Your task to perform on an android device: Open calendar and show me the second week of next month Image 0: 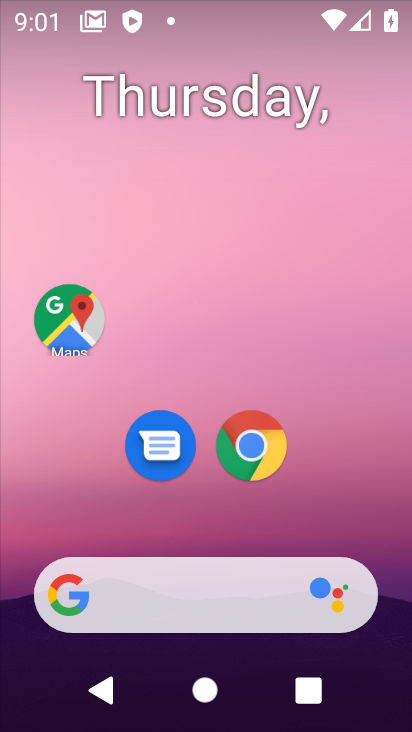
Step 0: drag from (250, 265) to (218, 144)
Your task to perform on an android device: Open calendar and show me the second week of next month Image 1: 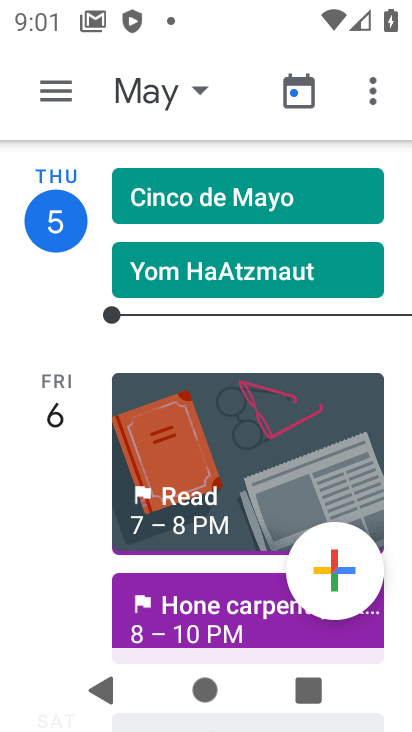
Step 1: press home button
Your task to perform on an android device: Open calendar and show me the second week of next month Image 2: 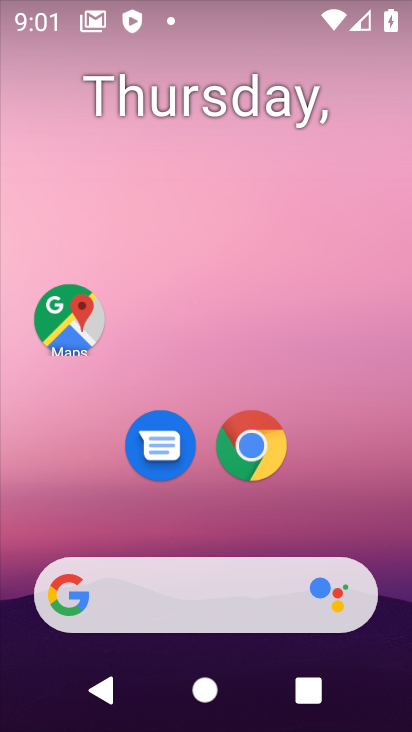
Step 2: drag from (313, 535) to (154, 165)
Your task to perform on an android device: Open calendar and show me the second week of next month Image 3: 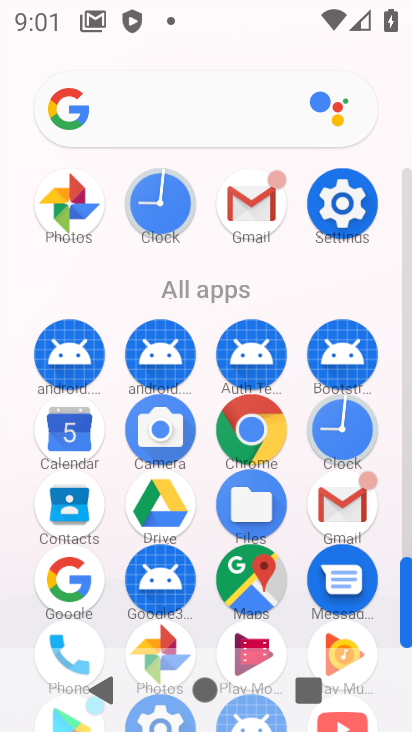
Step 3: click (77, 465)
Your task to perform on an android device: Open calendar and show me the second week of next month Image 4: 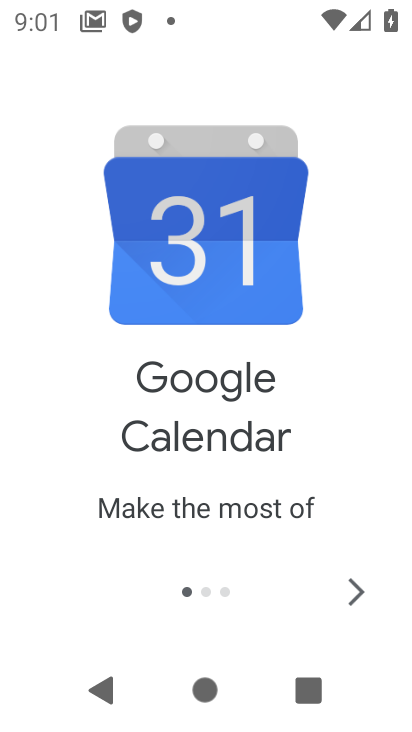
Step 4: click (355, 597)
Your task to perform on an android device: Open calendar and show me the second week of next month Image 5: 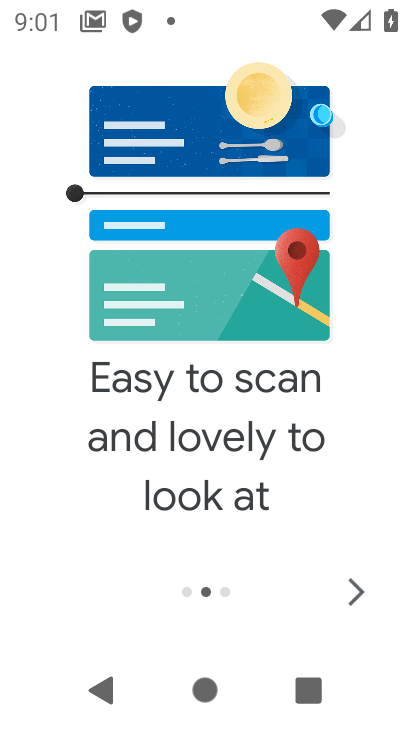
Step 5: click (355, 595)
Your task to perform on an android device: Open calendar and show me the second week of next month Image 6: 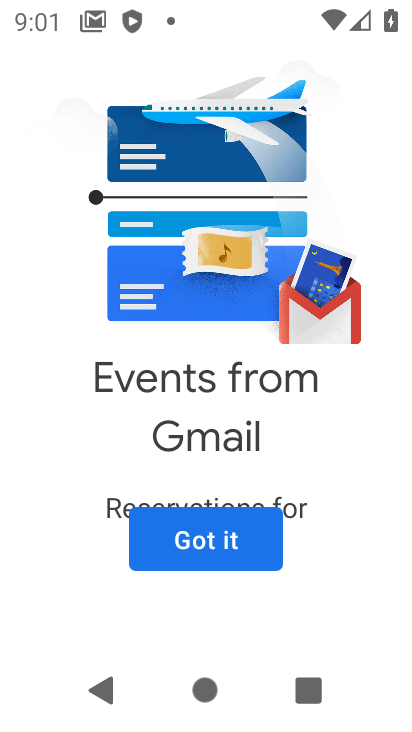
Step 6: click (250, 540)
Your task to perform on an android device: Open calendar and show me the second week of next month Image 7: 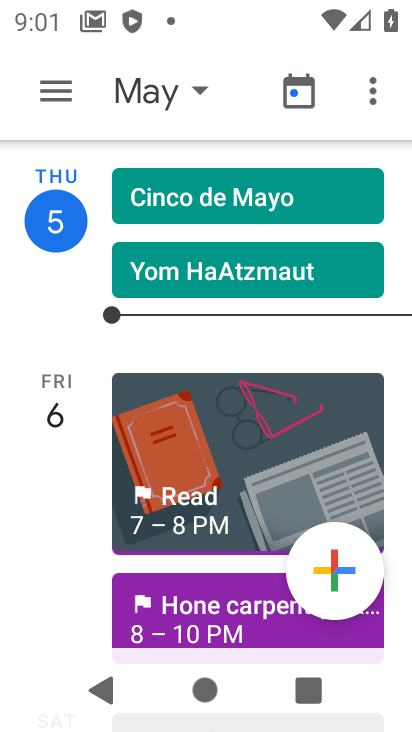
Step 7: click (166, 95)
Your task to perform on an android device: Open calendar and show me the second week of next month Image 8: 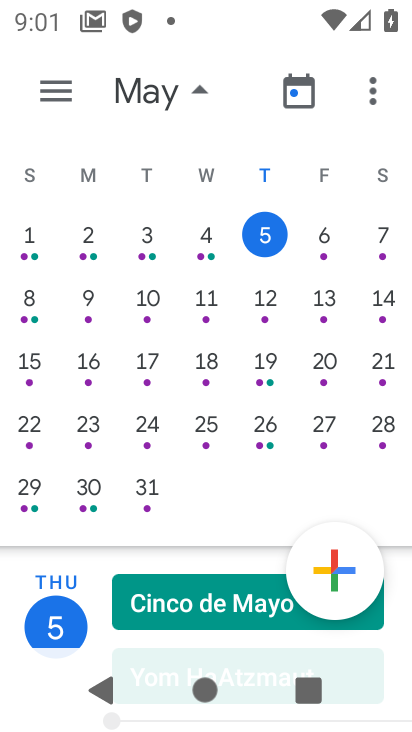
Step 8: drag from (347, 344) to (36, 319)
Your task to perform on an android device: Open calendar and show me the second week of next month Image 9: 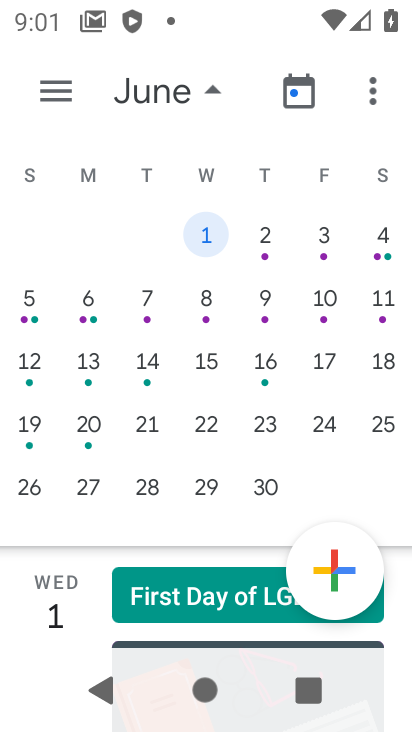
Step 9: click (58, 101)
Your task to perform on an android device: Open calendar and show me the second week of next month Image 10: 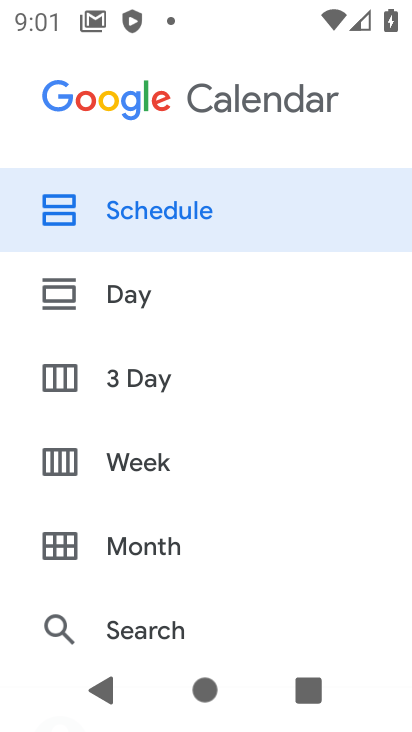
Step 10: click (133, 469)
Your task to perform on an android device: Open calendar and show me the second week of next month Image 11: 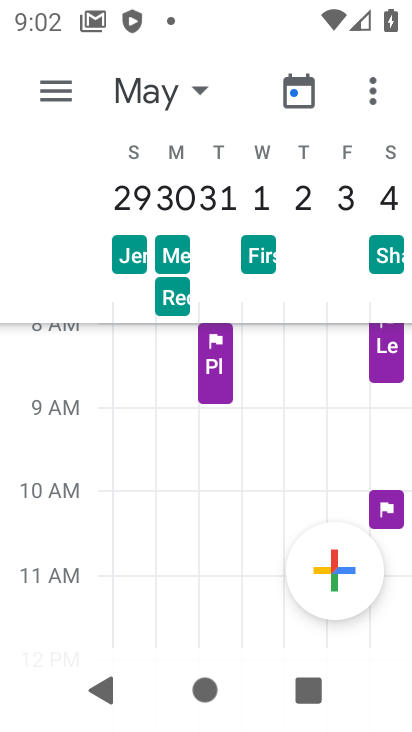
Step 11: click (168, 96)
Your task to perform on an android device: Open calendar and show me the second week of next month Image 12: 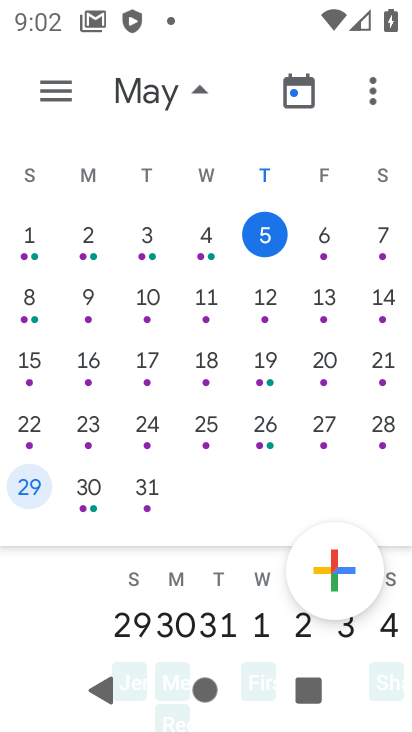
Step 12: drag from (334, 344) to (7, 348)
Your task to perform on an android device: Open calendar and show me the second week of next month Image 13: 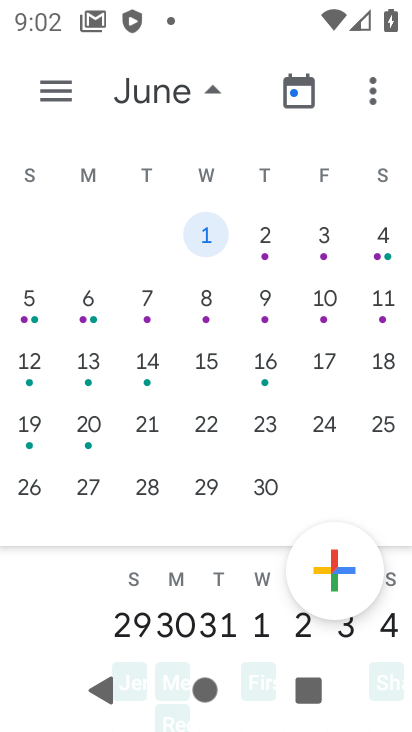
Step 13: click (26, 371)
Your task to perform on an android device: Open calendar and show me the second week of next month Image 14: 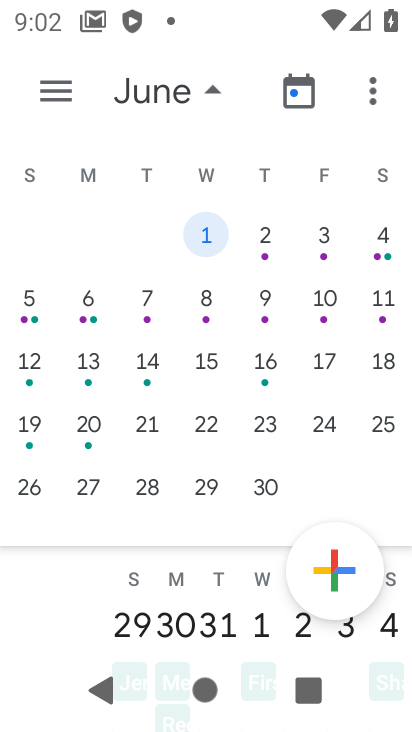
Step 14: click (31, 378)
Your task to perform on an android device: Open calendar and show me the second week of next month Image 15: 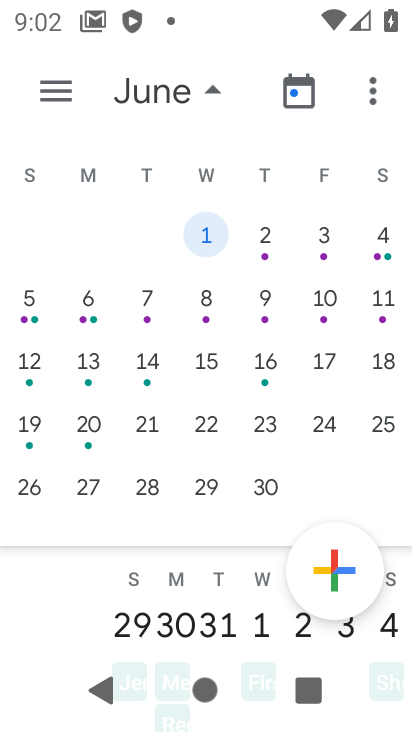
Step 15: click (34, 366)
Your task to perform on an android device: Open calendar and show me the second week of next month Image 16: 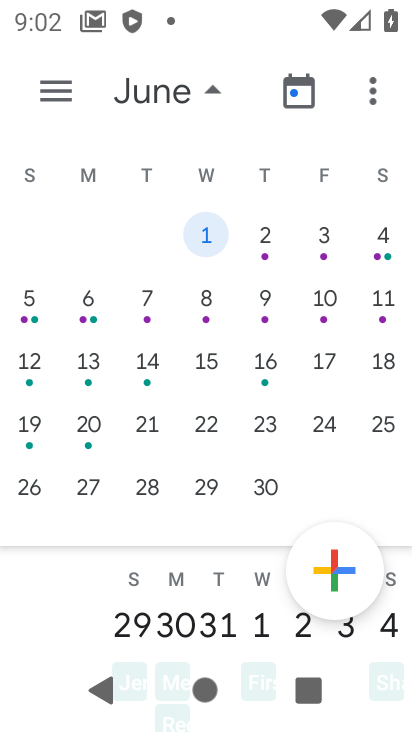
Step 16: click (31, 353)
Your task to perform on an android device: Open calendar and show me the second week of next month Image 17: 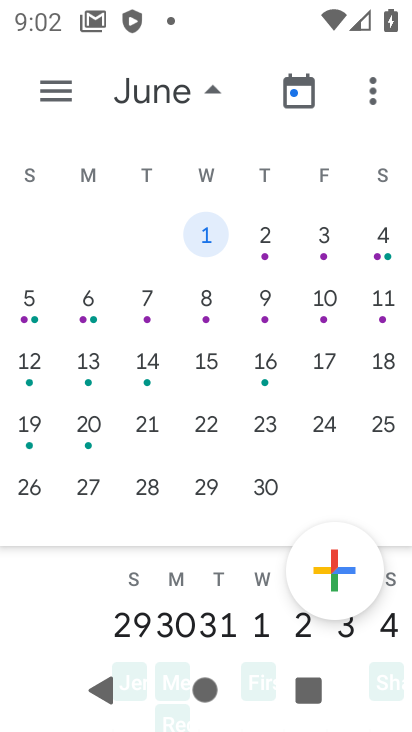
Step 17: click (28, 377)
Your task to perform on an android device: Open calendar and show me the second week of next month Image 18: 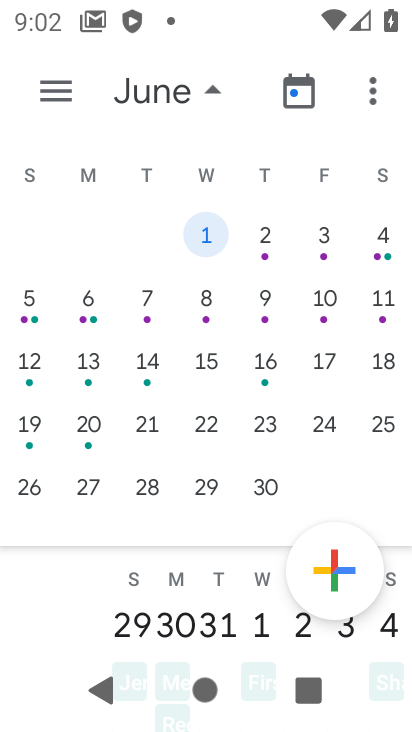
Step 18: click (29, 382)
Your task to perform on an android device: Open calendar and show me the second week of next month Image 19: 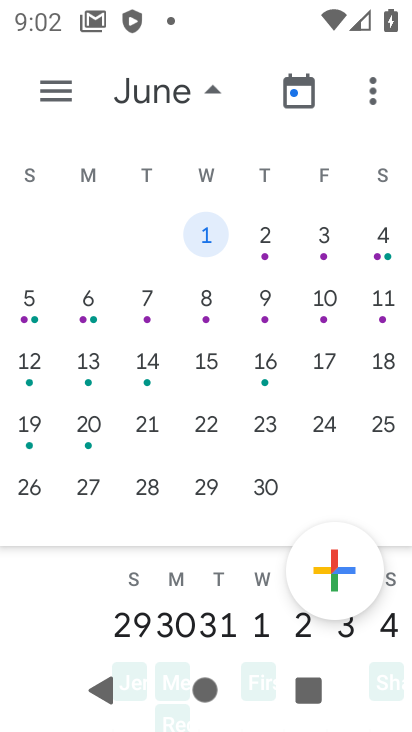
Step 19: click (26, 363)
Your task to perform on an android device: Open calendar and show me the second week of next month Image 20: 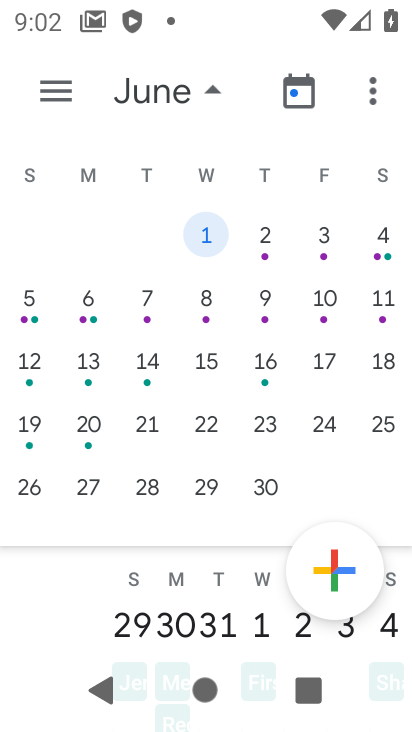
Step 20: click (33, 365)
Your task to perform on an android device: Open calendar and show me the second week of next month Image 21: 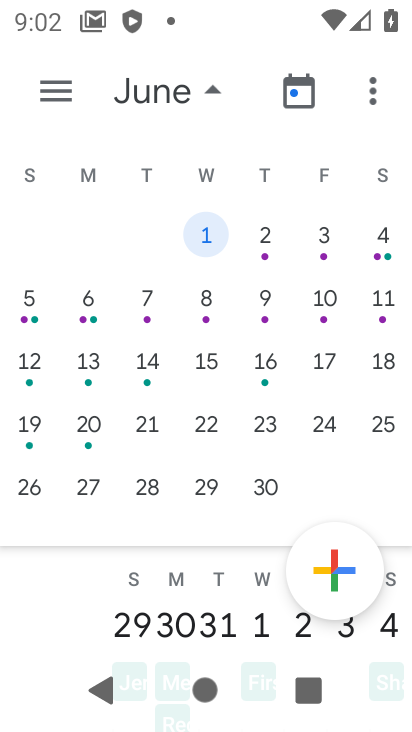
Step 21: click (40, 364)
Your task to perform on an android device: Open calendar and show me the second week of next month Image 22: 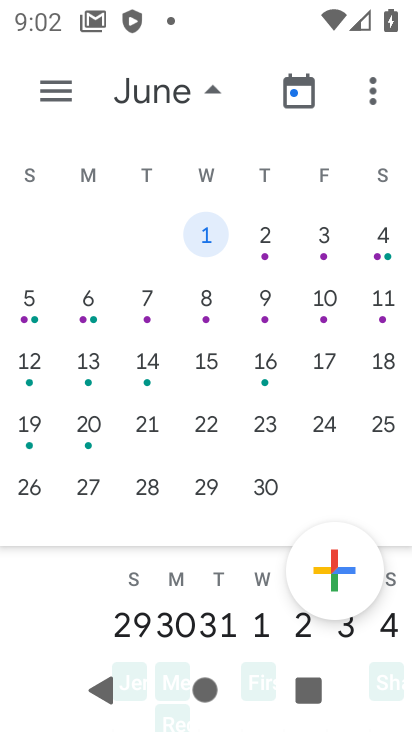
Step 22: click (40, 364)
Your task to perform on an android device: Open calendar and show me the second week of next month Image 23: 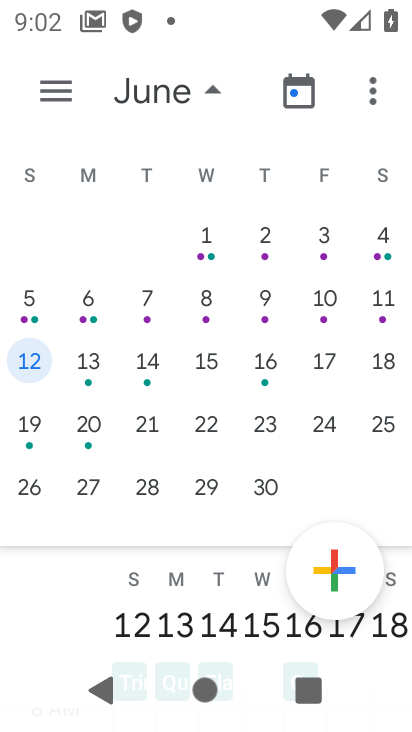
Step 23: task complete